Your task to perform on an android device: Search for Mexican restaurants on Maps Image 0: 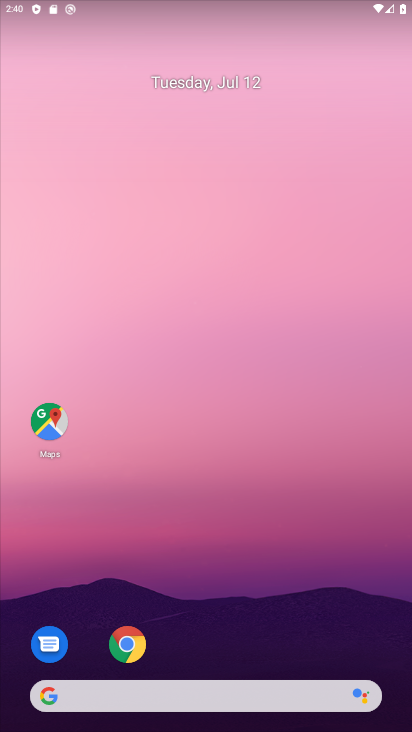
Step 0: click (55, 410)
Your task to perform on an android device: Search for Mexican restaurants on Maps Image 1: 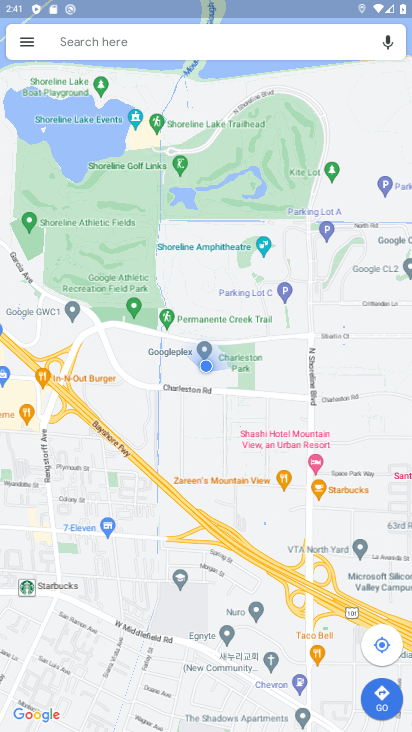
Step 1: click (141, 31)
Your task to perform on an android device: Search for Mexican restaurants on Maps Image 2: 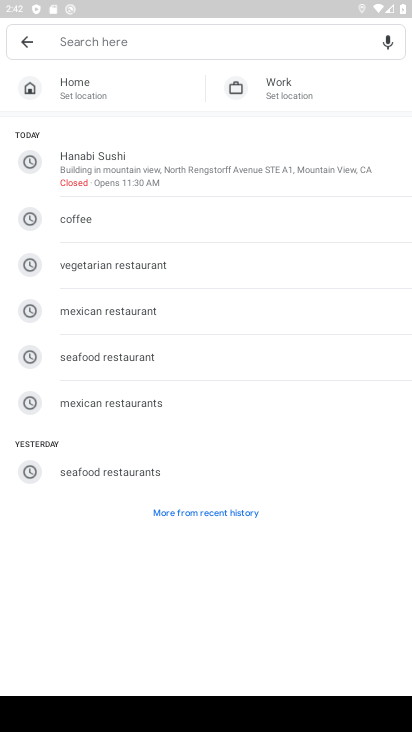
Step 2: click (140, 406)
Your task to perform on an android device: Search for Mexican restaurants on Maps Image 3: 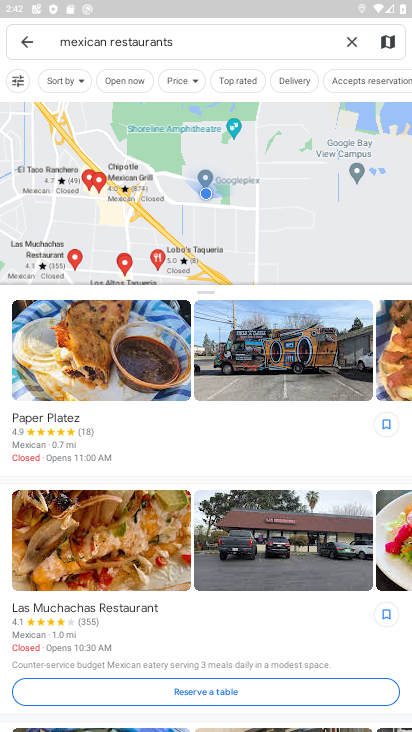
Step 3: task complete